Your task to perform on an android device: open sync settings in chrome Image 0: 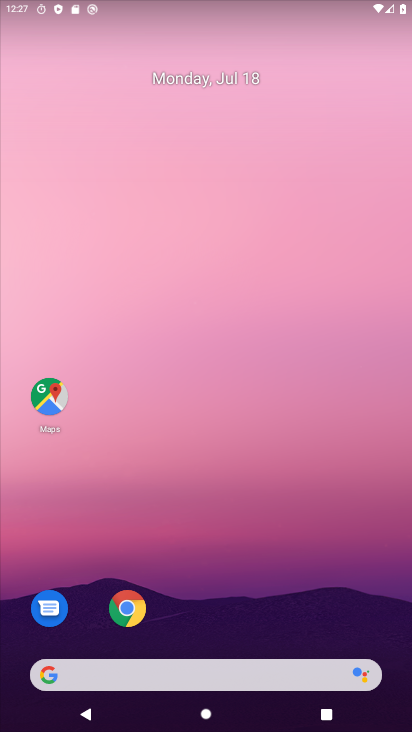
Step 0: drag from (202, 642) to (283, 0)
Your task to perform on an android device: open sync settings in chrome Image 1: 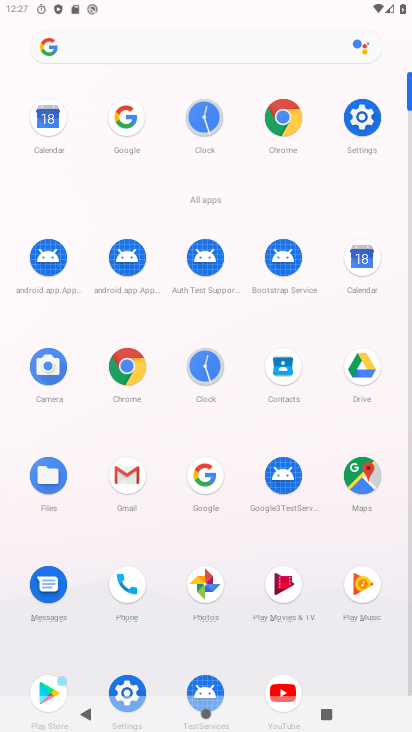
Step 1: click (288, 120)
Your task to perform on an android device: open sync settings in chrome Image 2: 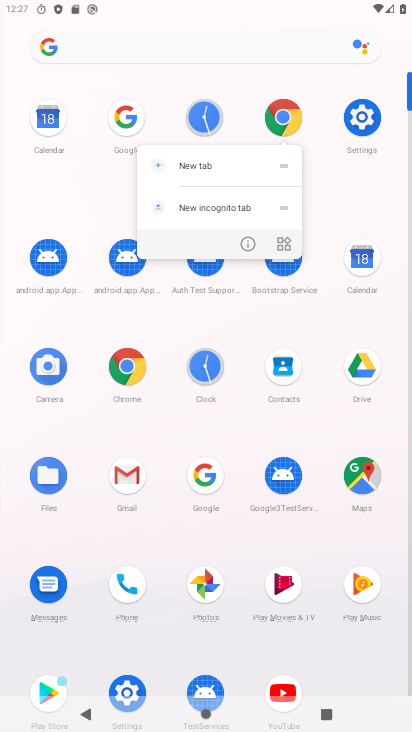
Step 2: click (288, 119)
Your task to perform on an android device: open sync settings in chrome Image 3: 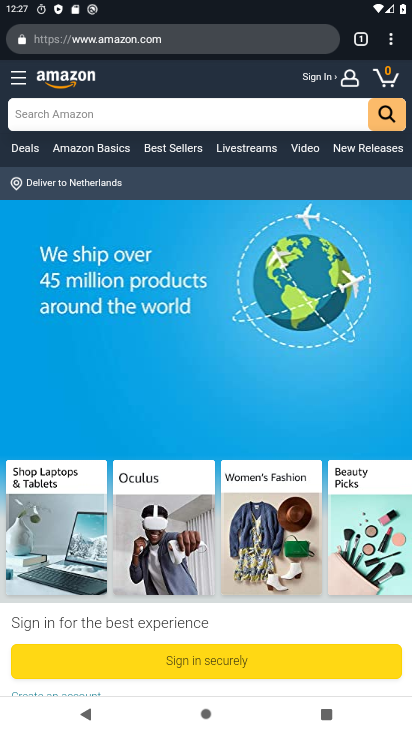
Step 3: drag from (393, 41) to (258, 474)
Your task to perform on an android device: open sync settings in chrome Image 4: 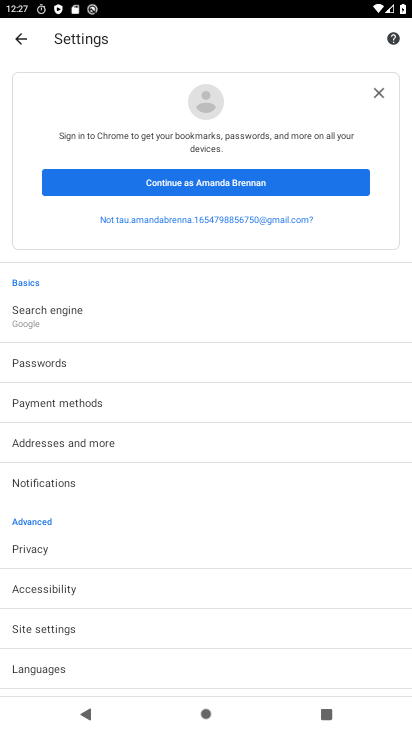
Step 4: drag from (135, 524) to (213, 159)
Your task to perform on an android device: open sync settings in chrome Image 5: 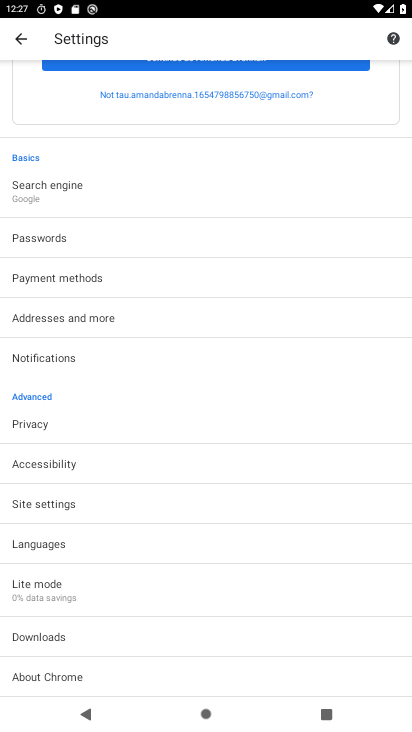
Step 5: drag from (71, 653) to (200, 197)
Your task to perform on an android device: open sync settings in chrome Image 6: 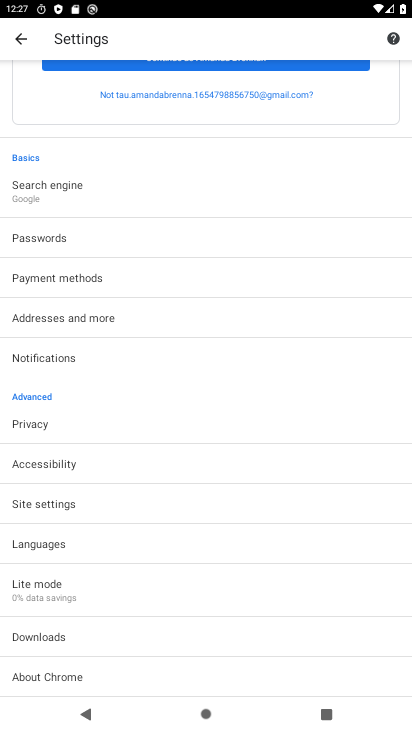
Step 6: click (50, 509)
Your task to perform on an android device: open sync settings in chrome Image 7: 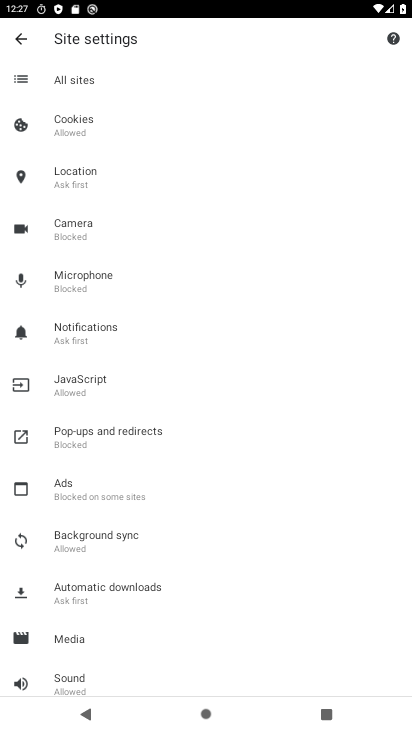
Step 7: click (82, 531)
Your task to perform on an android device: open sync settings in chrome Image 8: 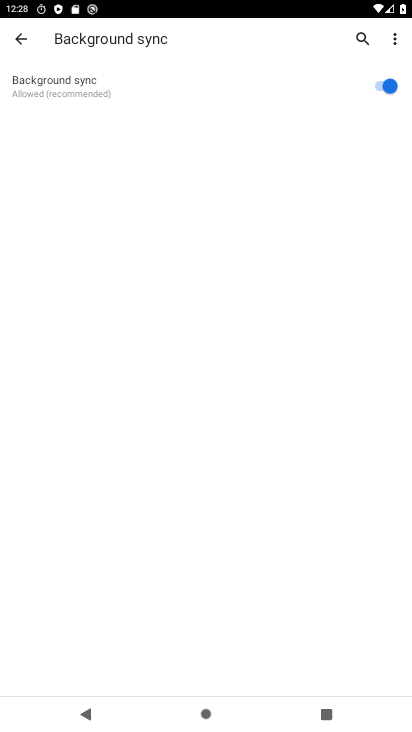
Step 8: task complete